Your task to perform on an android device: change alarm snooze length Image 0: 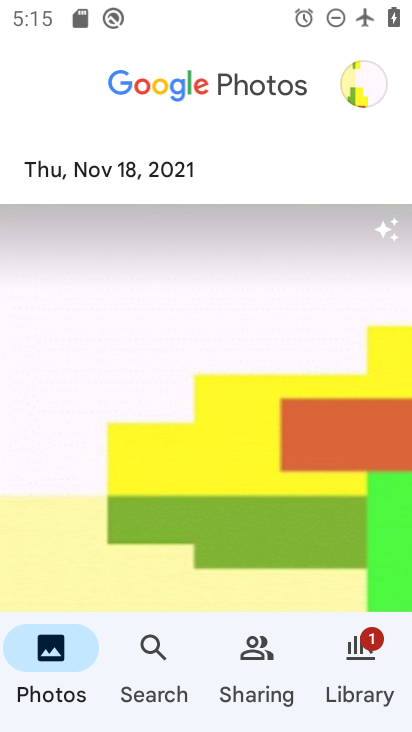
Step 0: press home button
Your task to perform on an android device: change alarm snooze length Image 1: 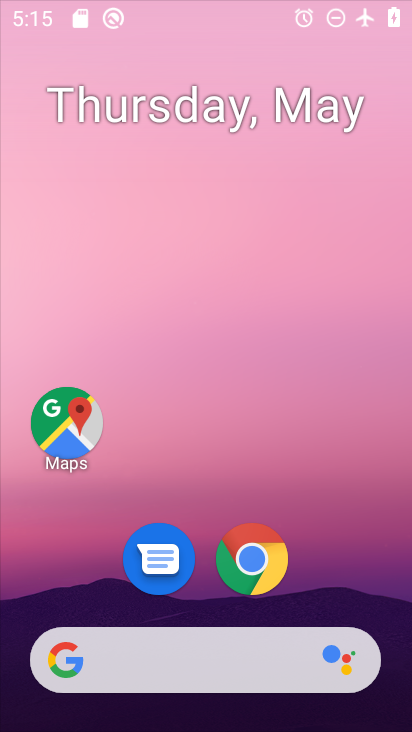
Step 1: drag from (302, 516) to (216, 27)
Your task to perform on an android device: change alarm snooze length Image 2: 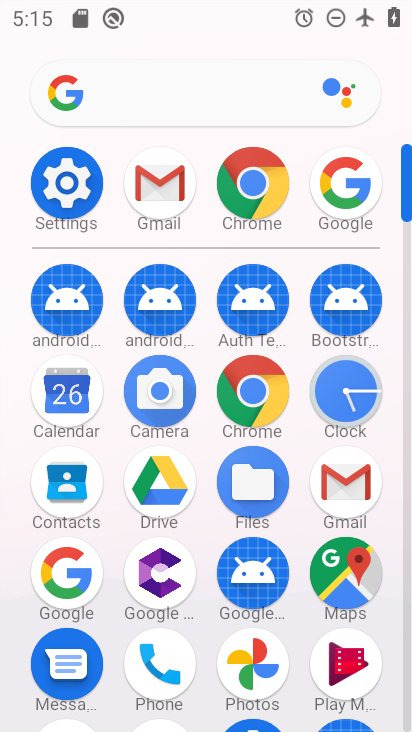
Step 2: click (339, 365)
Your task to perform on an android device: change alarm snooze length Image 3: 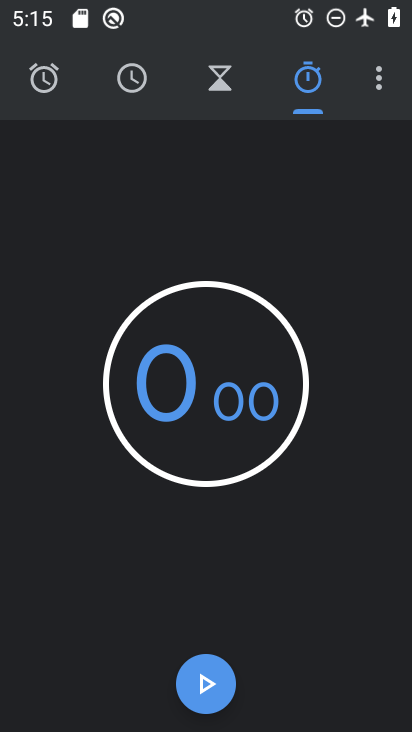
Step 3: click (393, 72)
Your task to perform on an android device: change alarm snooze length Image 4: 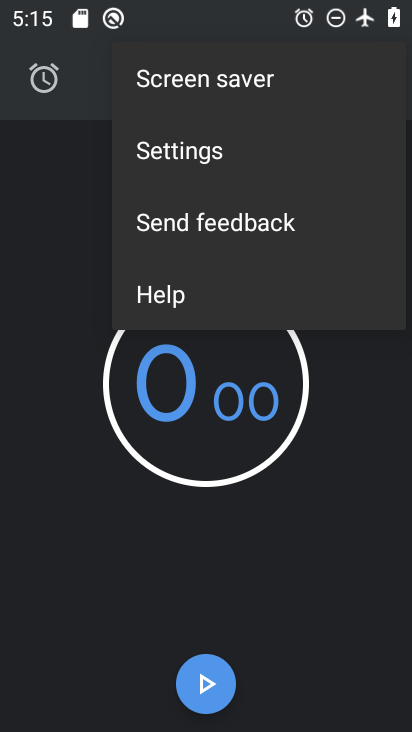
Step 4: click (218, 143)
Your task to perform on an android device: change alarm snooze length Image 5: 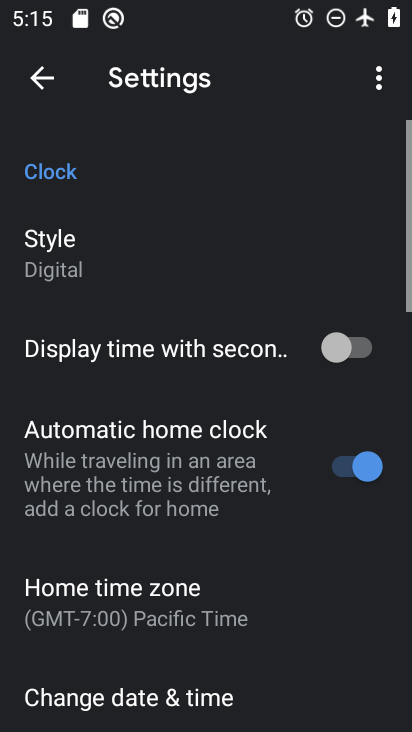
Step 5: drag from (265, 633) to (242, 164)
Your task to perform on an android device: change alarm snooze length Image 6: 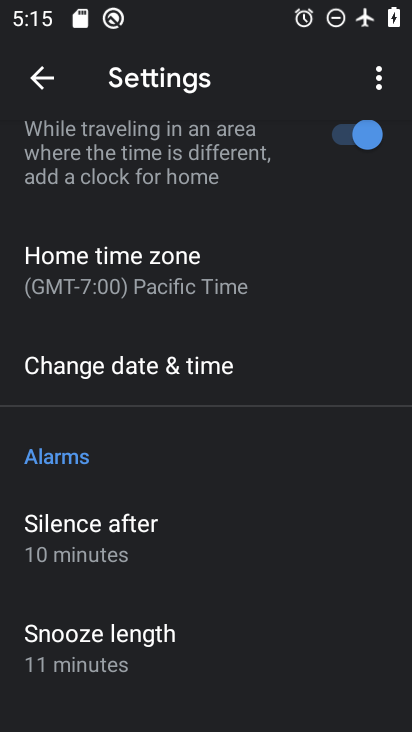
Step 6: click (178, 665)
Your task to perform on an android device: change alarm snooze length Image 7: 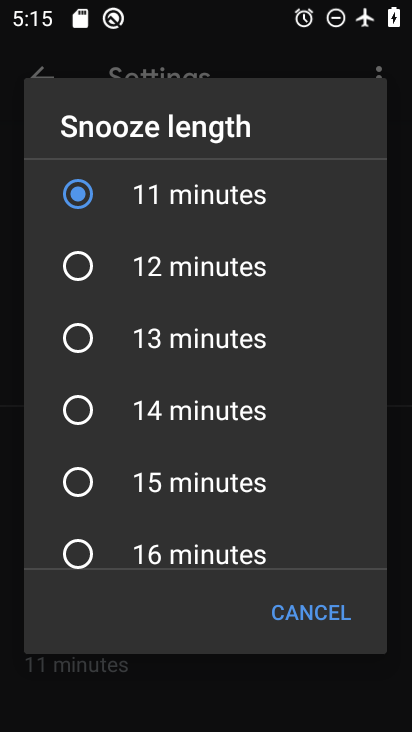
Step 7: click (203, 276)
Your task to perform on an android device: change alarm snooze length Image 8: 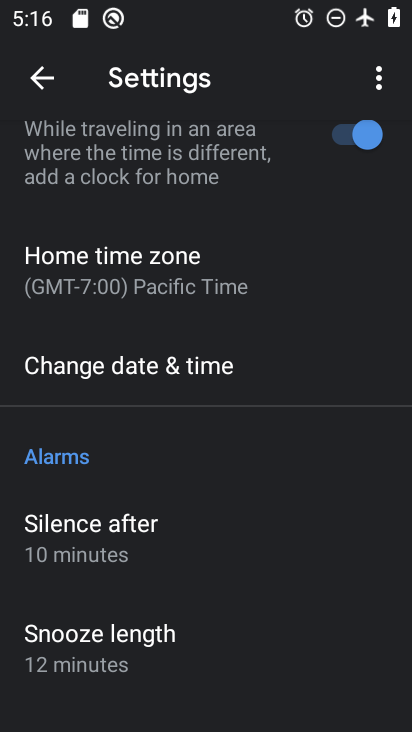
Step 8: click (184, 643)
Your task to perform on an android device: change alarm snooze length Image 9: 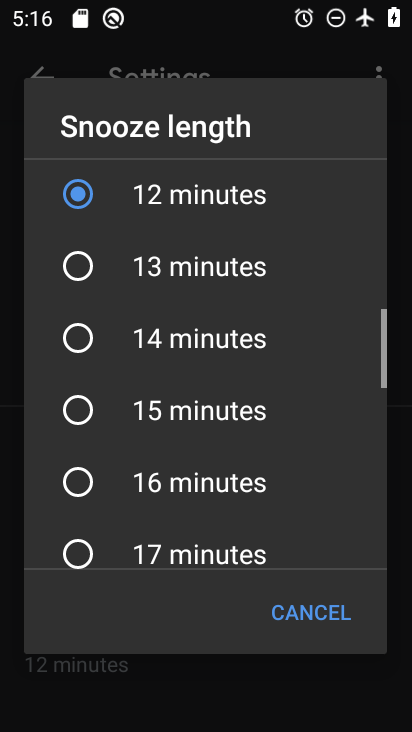
Step 9: click (194, 342)
Your task to perform on an android device: change alarm snooze length Image 10: 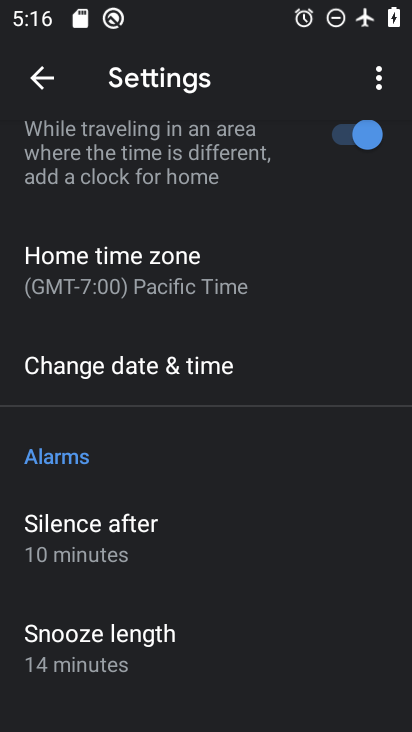
Step 10: task complete